Your task to perform on an android device: Is it going to rain this weekend? Image 0: 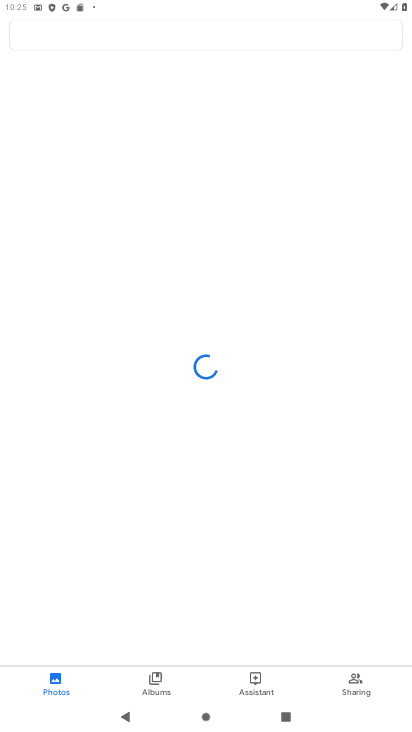
Step 0: press home button
Your task to perform on an android device: Is it going to rain this weekend? Image 1: 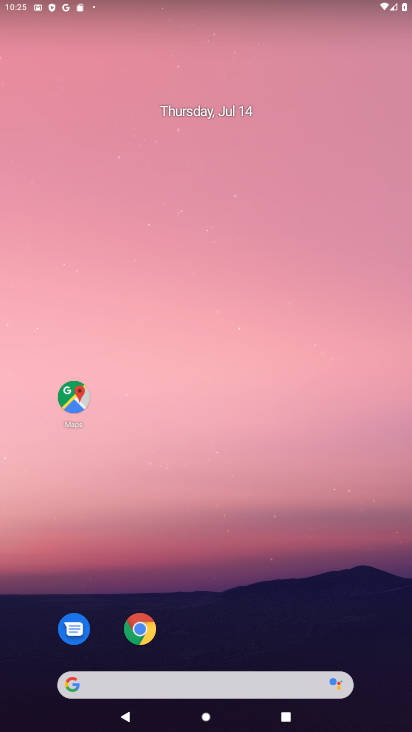
Step 1: drag from (235, 632) to (167, 121)
Your task to perform on an android device: Is it going to rain this weekend? Image 2: 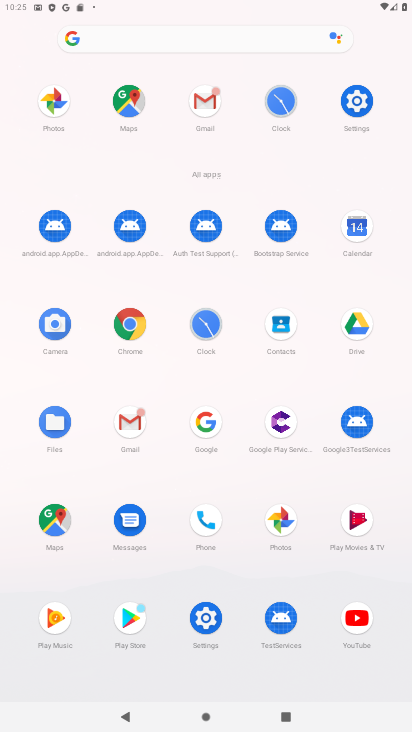
Step 2: click (212, 417)
Your task to perform on an android device: Is it going to rain this weekend? Image 3: 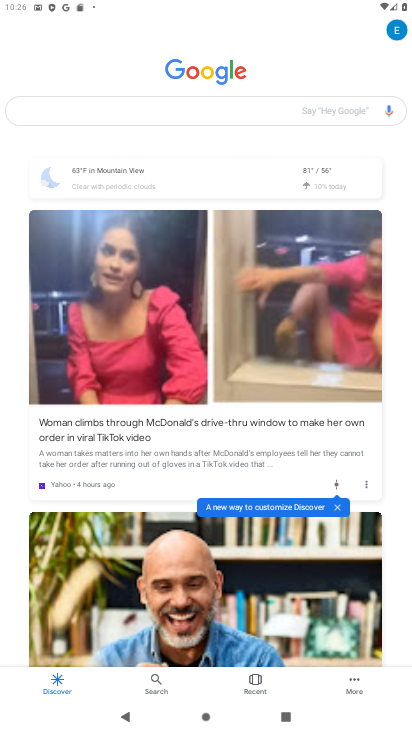
Step 3: click (206, 162)
Your task to perform on an android device: Is it going to rain this weekend? Image 4: 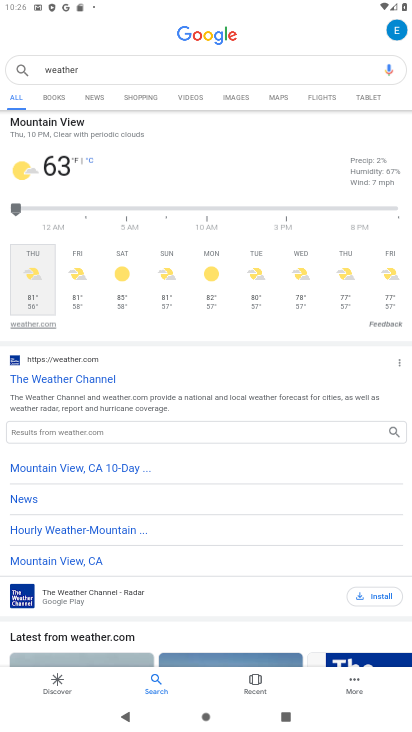
Step 4: task complete